Your task to perform on an android device: show emergency info Image 0: 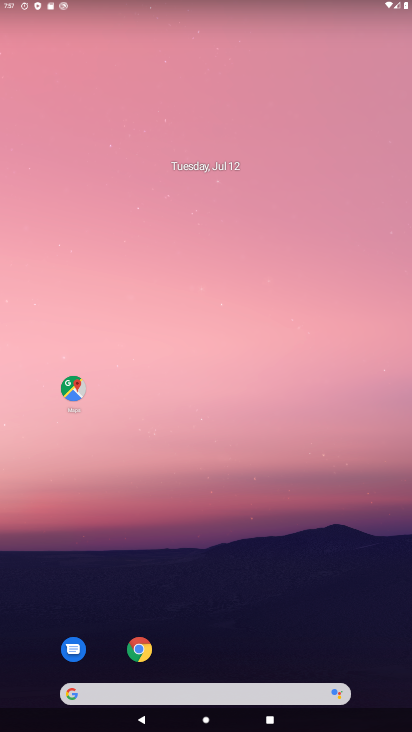
Step 0: drag from (283, 630) to (299, 79)
Your task to perform on an android device: show emergency info Image 1: 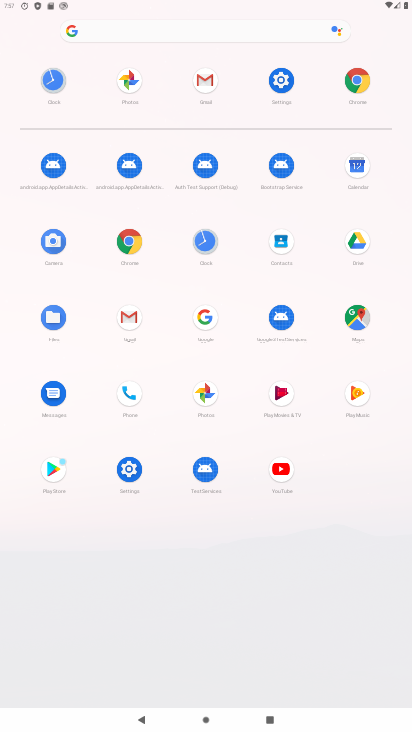
Step 1: click (283, 83)
Your task to perform on an android device: show emergency info Image 2: 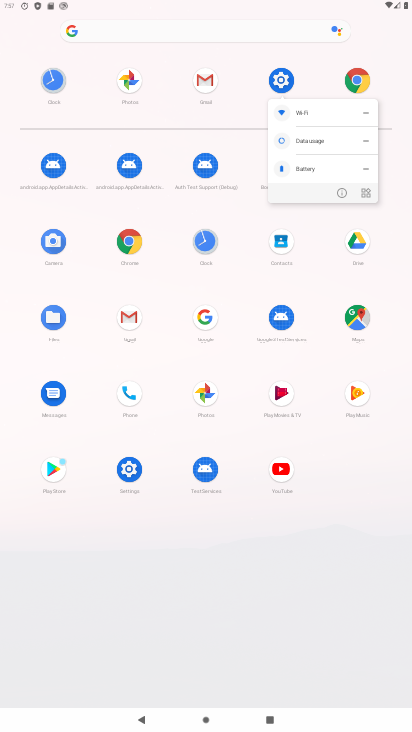
Step 2: click (283, 83)
Your task to perform on an android device: show emergency info Image 3: 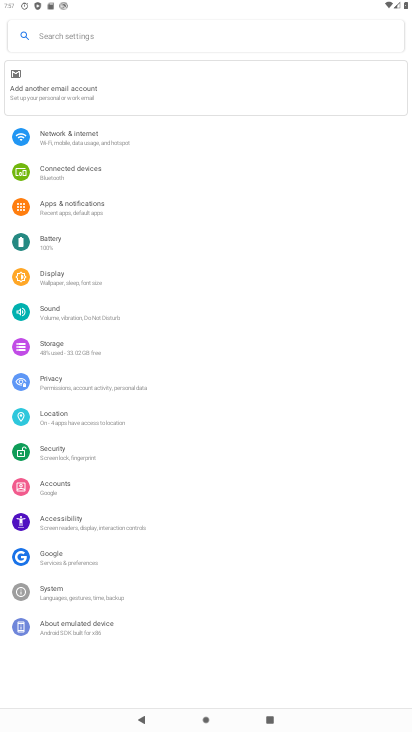
Step 3: click (64, 625)
Your task to perform on an android device: show emergency info Image 4: 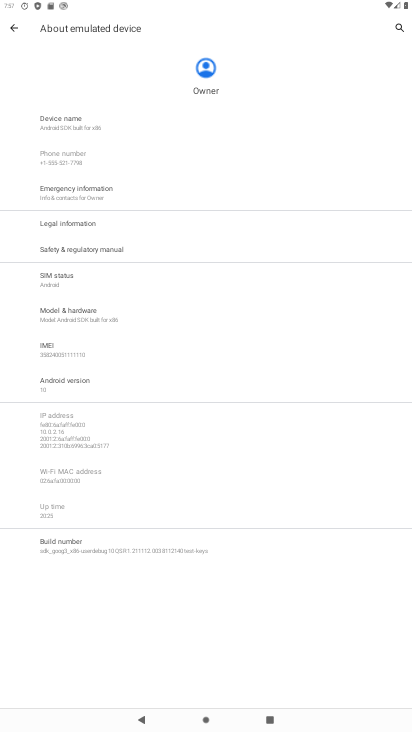
Step 4: click (116, 189)
Your task to perform on an android device: show emergency info Image 5: 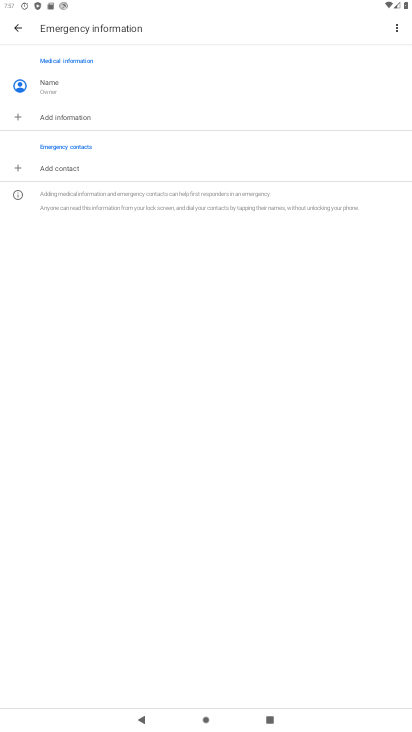
Step 5: task complete